Your task to perform on an android device: turn off javascript in the chrome app Image 0: 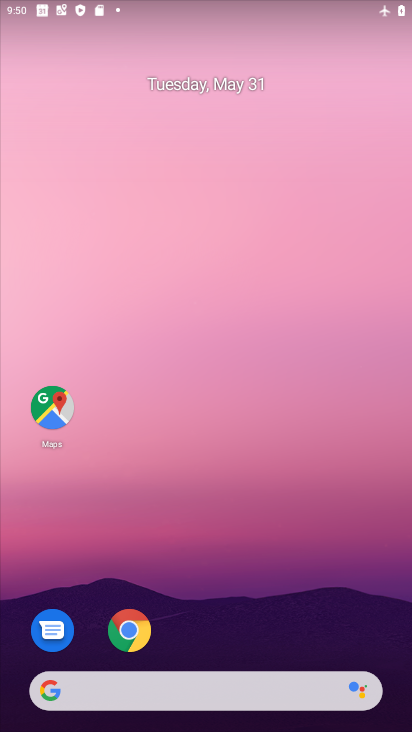
Step 0: drag from (235, 600) to (196, 323)
Your task to perform on an android device: turn off javascript in the chrome app Image 1: 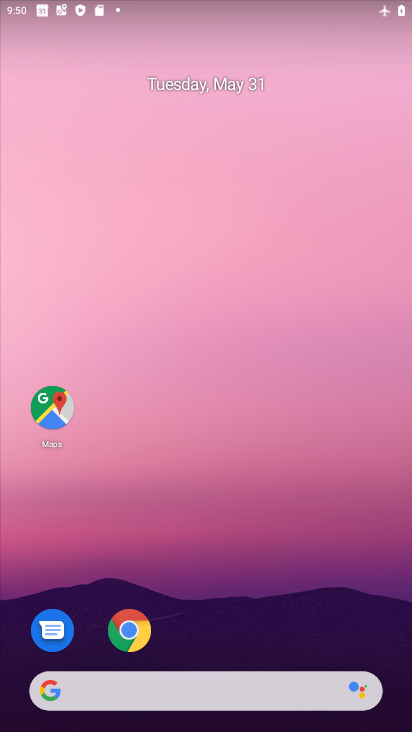
Step 1: drag from (246, 637) to (225, 297)
Your task to perform on an android device: turn off javascript in the chrome app Image 2: 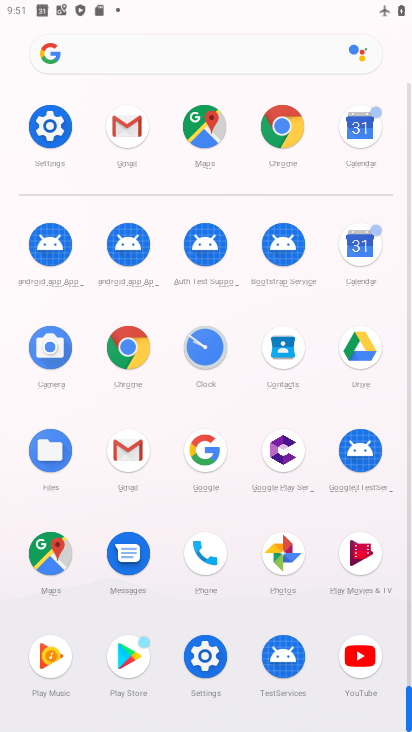
Step 2: click (127, 335)
Your task to perform on an android device: turn off javascript in the chrome app Image 3: 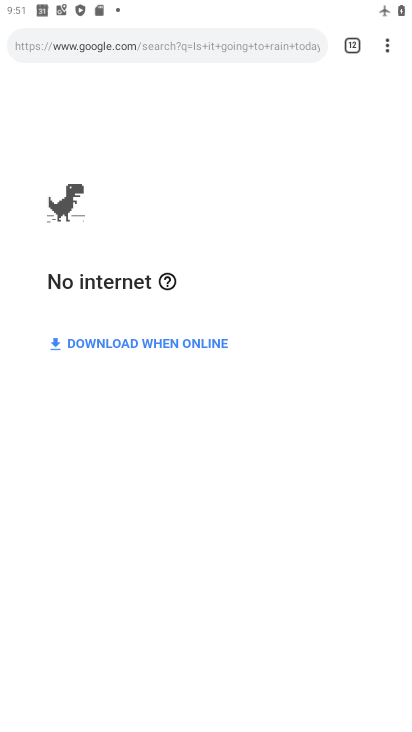
Step 3: click (384, 44)
Your task to perform on an android device: turn off javascript in the chrome app Image 4: 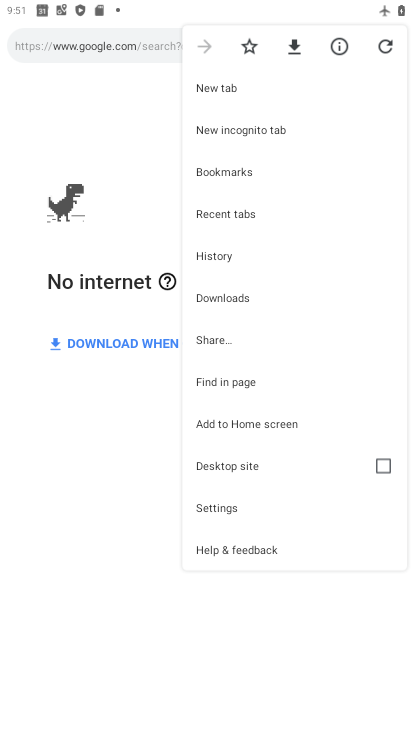
Step 4: click (246, 503)
Your task to perform on an android device: turn off javascript in the chrome app Image 5: 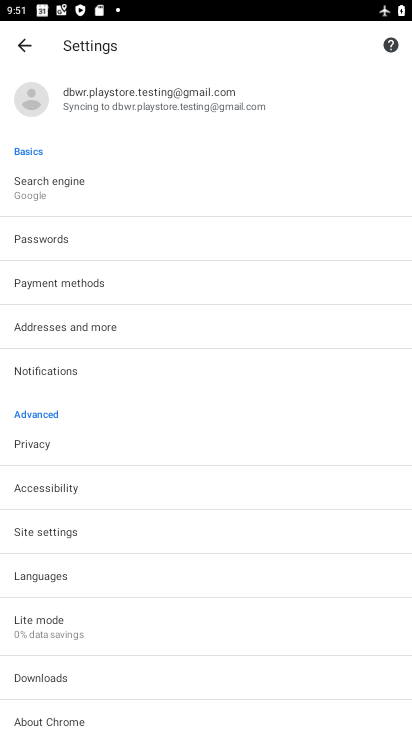
Step 5: drag from (139, 517) to (199, 250)
Your task to perform on an android device: turn off javascript in the chrome app Image 6: 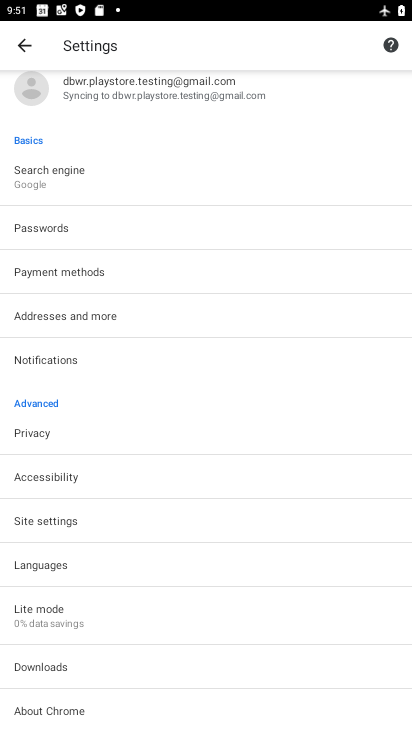
Step 6: click (108, 518)
Your task to perform on an android device: turn off javascript in the chrome app Image 7: 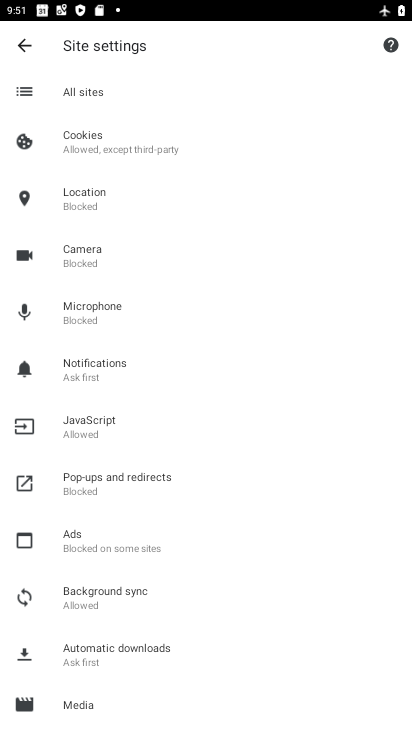
Step 7: click (107, 418)
Your task to perform on an android device: turn off javascript in the chrome app Image 8: 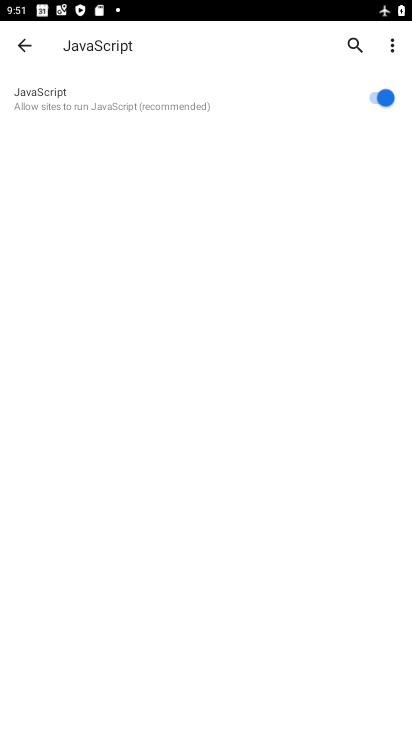
Step 8: click (368, 92)
Your task to perform on an android device: turn off javascript in the chrome app Image 9: 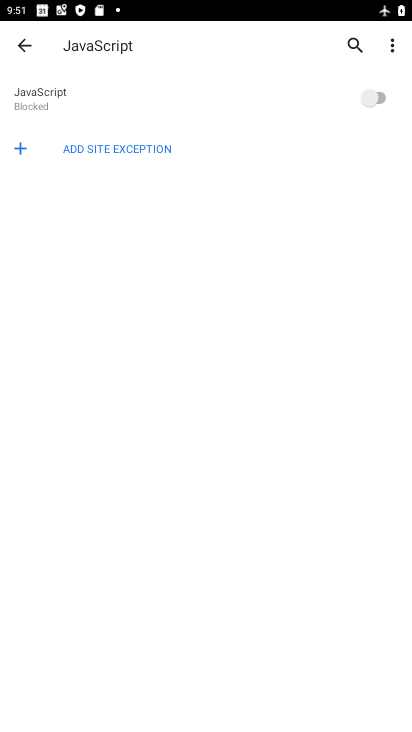
Step 9: task complete